Your task to perform on an android device: open wifi settings Image 0: 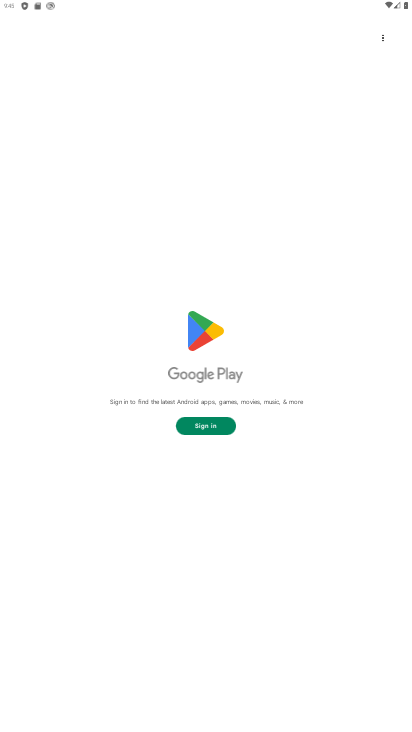
Step 0: press home button
Your task to perform on an android device: open wifi settings Image 1: 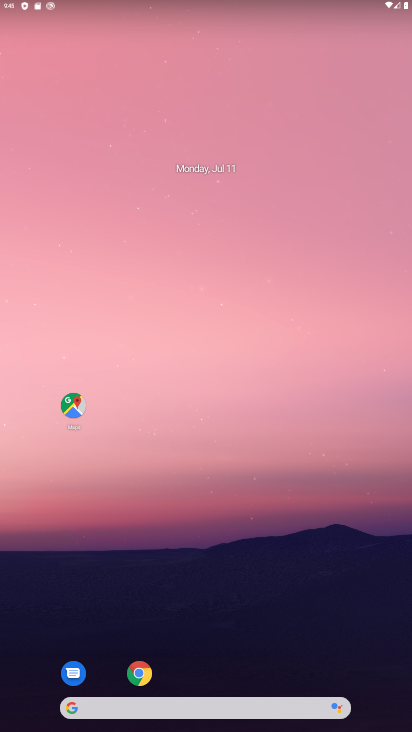
Step 1: drag from (209, 687) to (238, 197)
Your task to perform on an android device: open wifi settings Image 2: 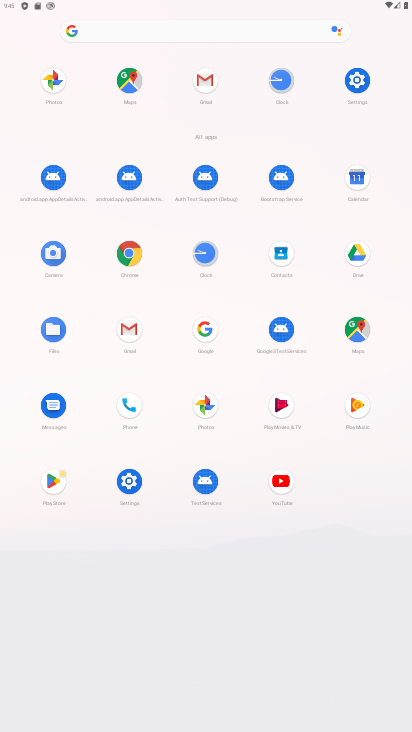
Step 2: click (120, 478)
Your task to perform on an android device: open wifi settings Image 3: 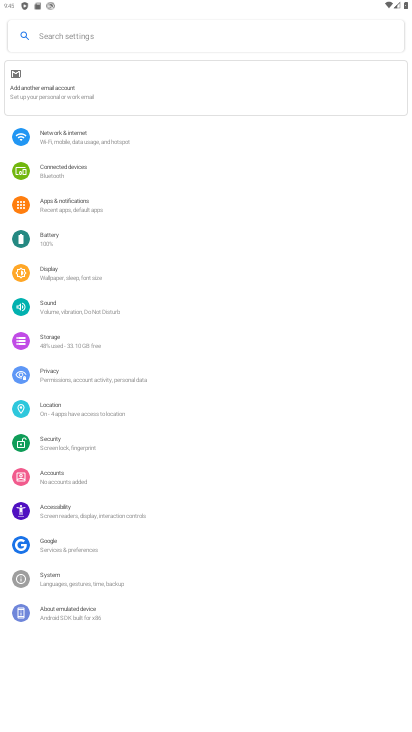
Step 3: click (122, 148)
Your task to perform on an android device: open wifi settings Image 4: 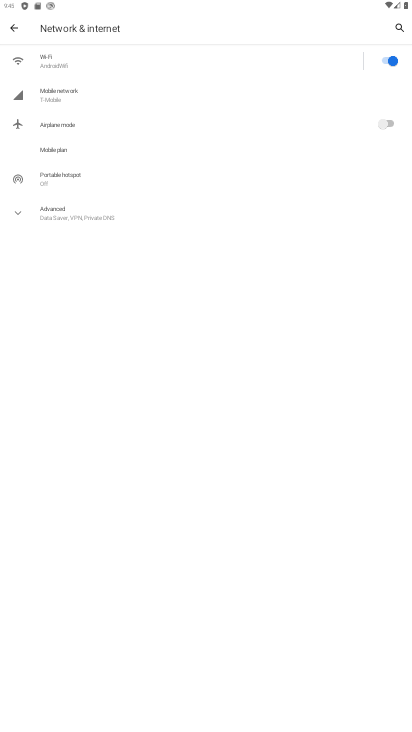
Step 4: click (89, 68)
Your task to perform on an android device: open wifi settings Image 5: 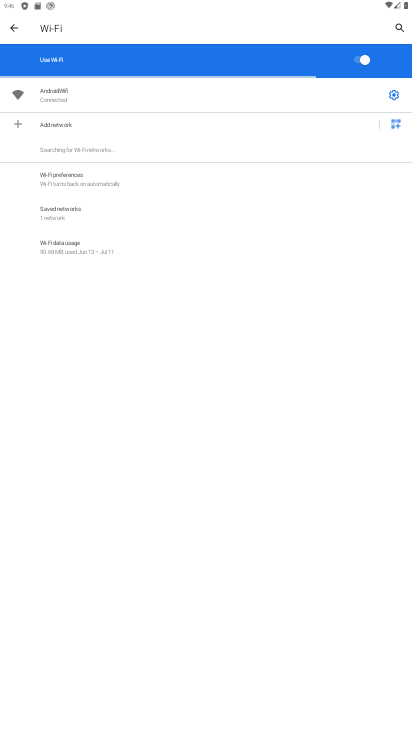
Step 5: task complete